Your task to perform on an android device: set default search engine in the chrome app Image 0: 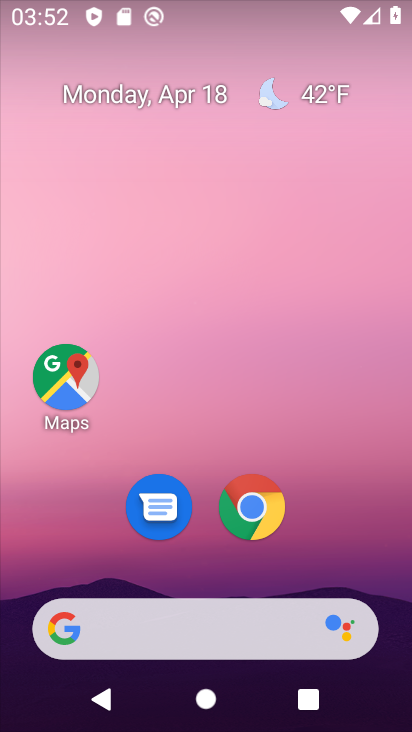
Step 0: click (257, 508)
Your task to perform on an android device: set default search engine in the chrome app Image 1: 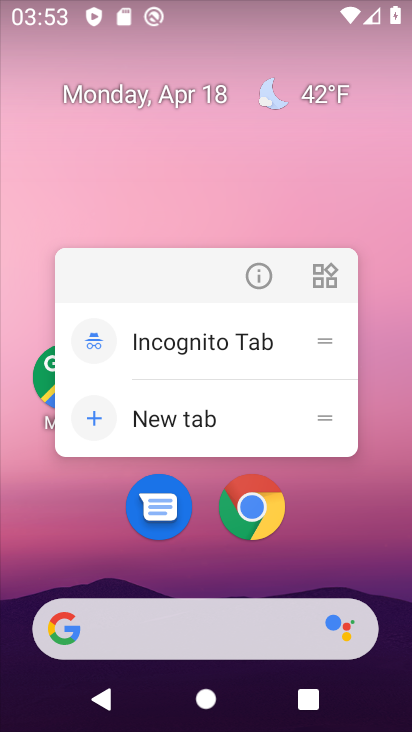
Step 1: click (241, 499)
Your task to perform on an android device: set default search engine in the chrome app Image 2: 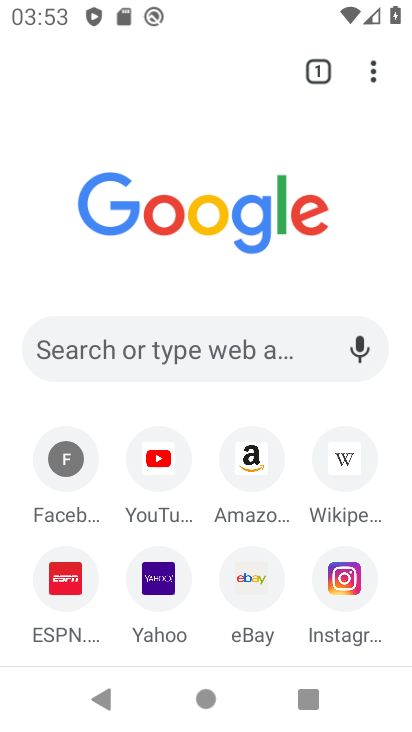
Step 2: click (368, 71)
Your task to perform on an android device: set default search engine in the chrome app Image 3: 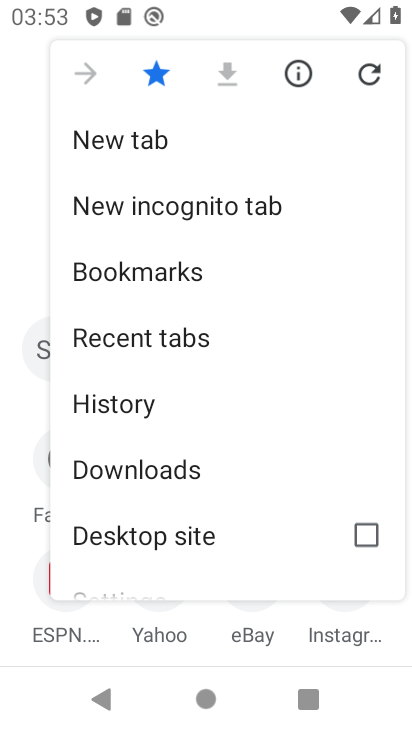
Step 3: drag from (215, 513) to (254, 212)
Your task to perform on an android device: set default search engine in the chrome app Image 4: 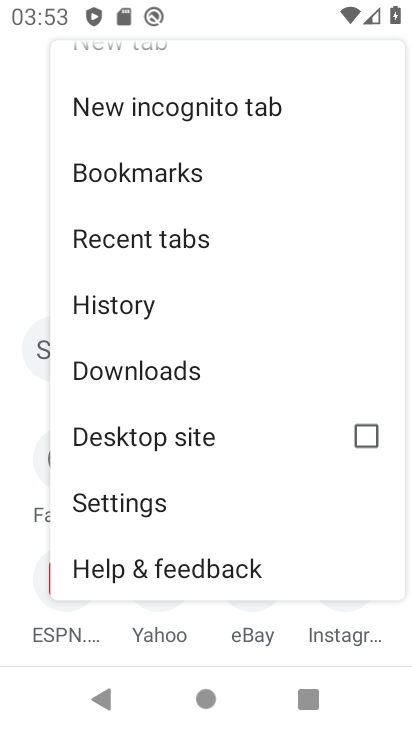
Step 4: click (142, 502)
Your task to perform on an android device: set default search engine in the chrome app Image 5: 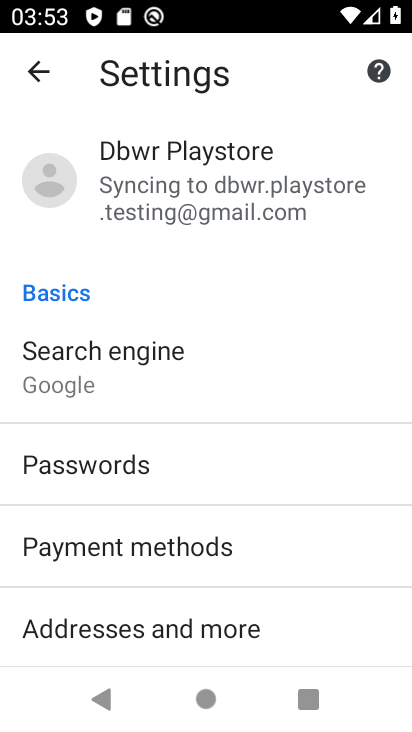
Step 5: drag from (156, 395) to (168, 166)
Your task to perform on an android device: set default search engine in the chrome app Image 6: 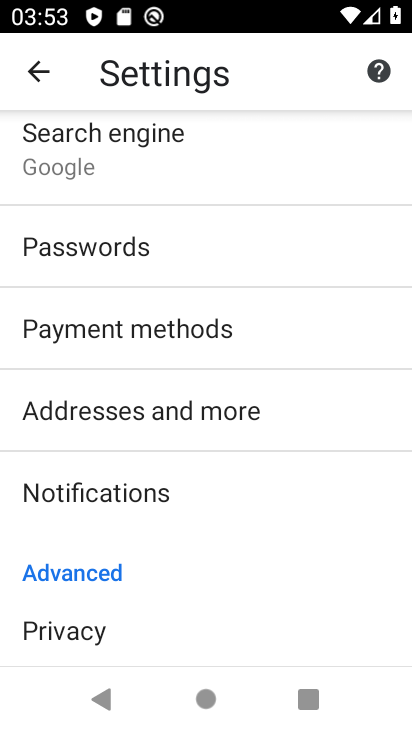
Step 6: drag from (150, 556) to (180, 272)
Your task to perform on an android device: set default search engine in the chrome app Image 7: 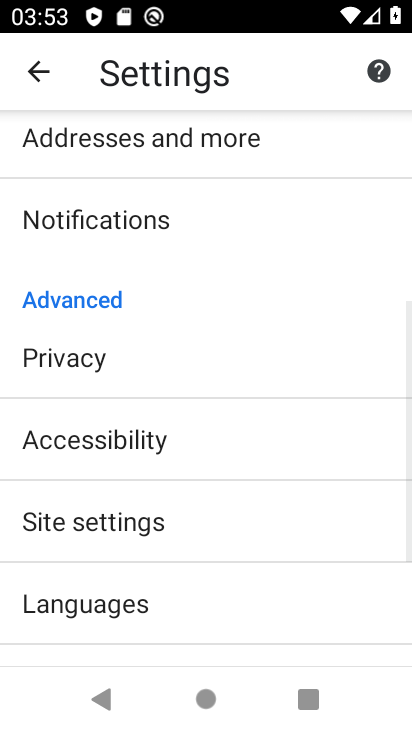
Step 7: drag from (128, 262) to (185, 545)
Your task to perform on an android device: set default search engine in the chrome app Image 8: 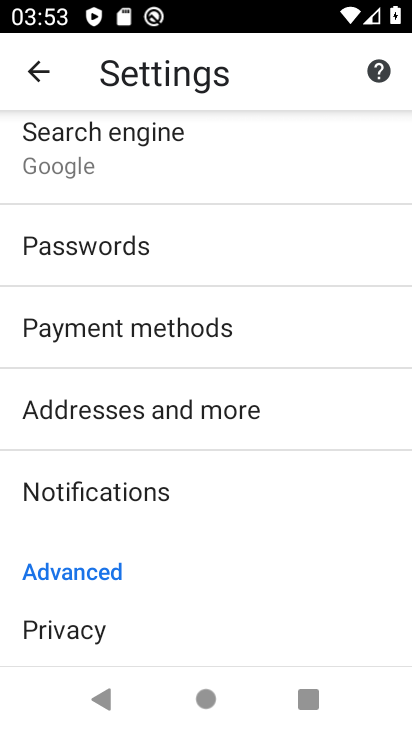
Step 8: click (96, 166)
Your task to perform on an android device: set default search engine in the chrome app Image 9: 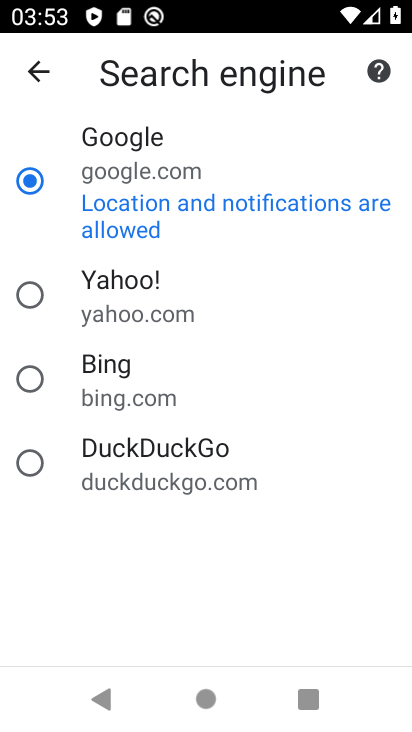
Step 9: click (35, 292)
Your task to perform on an android device: set default search engine in the chrome app Image 10: 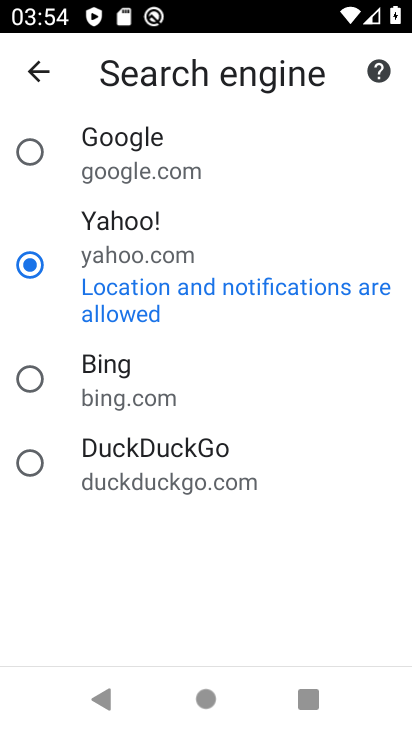
Step 10: task complete